Your task to perform on an android device: Open the Play Movies app and select the watchlist tab. Image 0: 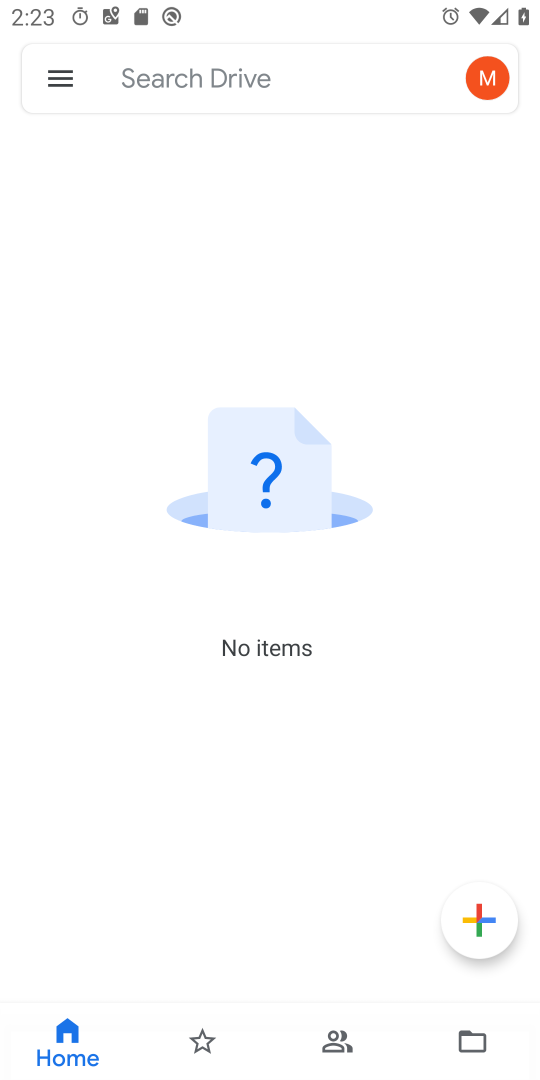
Step 0: press back button
Your task to perform on an android device: Open the Play Movies app and select the watchlist tab. Image 1: 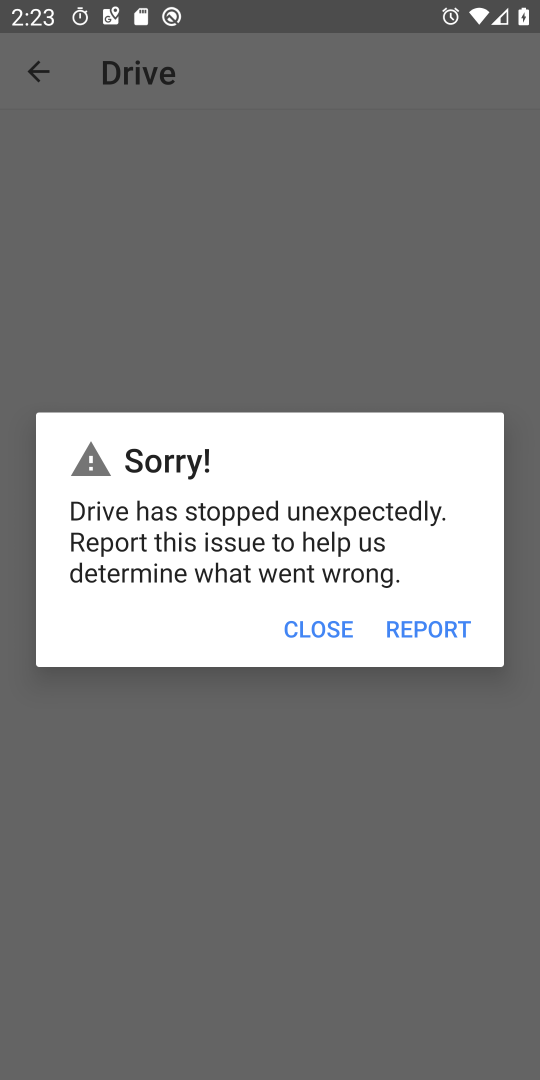
Step 1: press home button
Your task to perform on an android device: Open the Play Movies app and select the watchlist tab. Image 2: 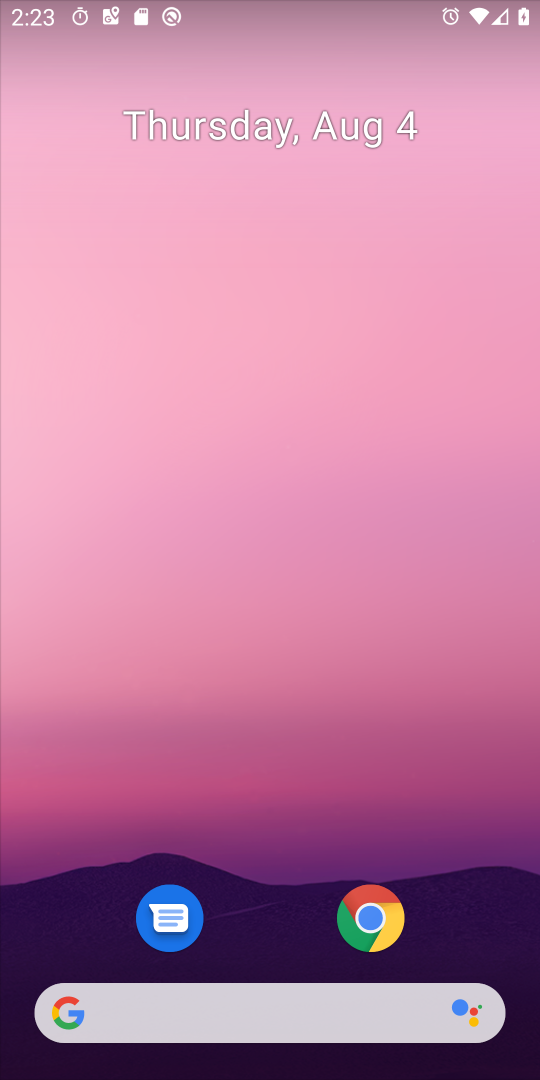
Step 2: drag from (293, 878) to (287, 422)
Your task to perform on an android device: Open the Play Movies app and select the watchlist tab. Image 3: 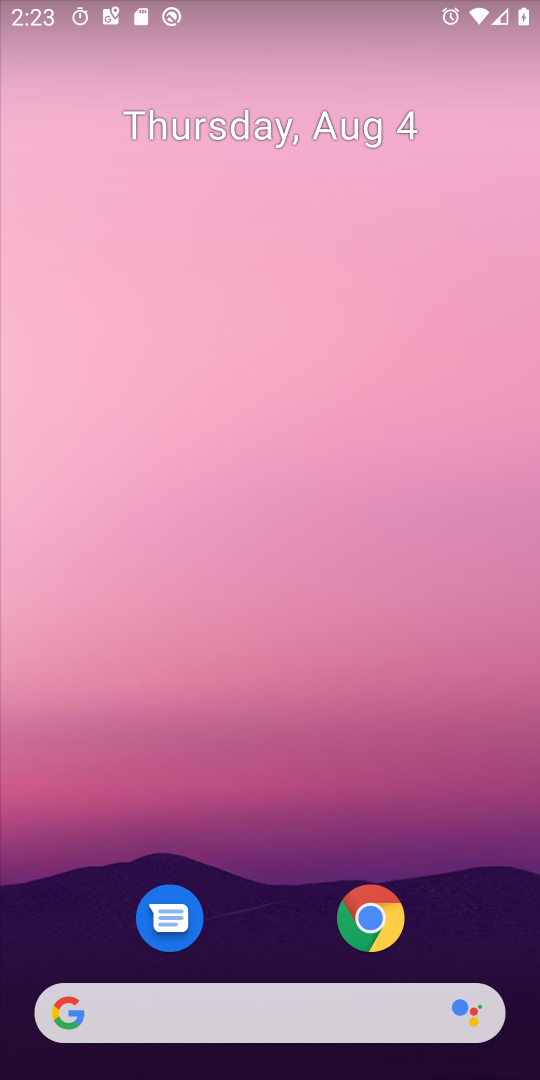
Step 3: drag from (298, 759) to (279, 250)
Your task to perform on an android device: Open the Play Movies app and select the watchlist tab. Image 4: 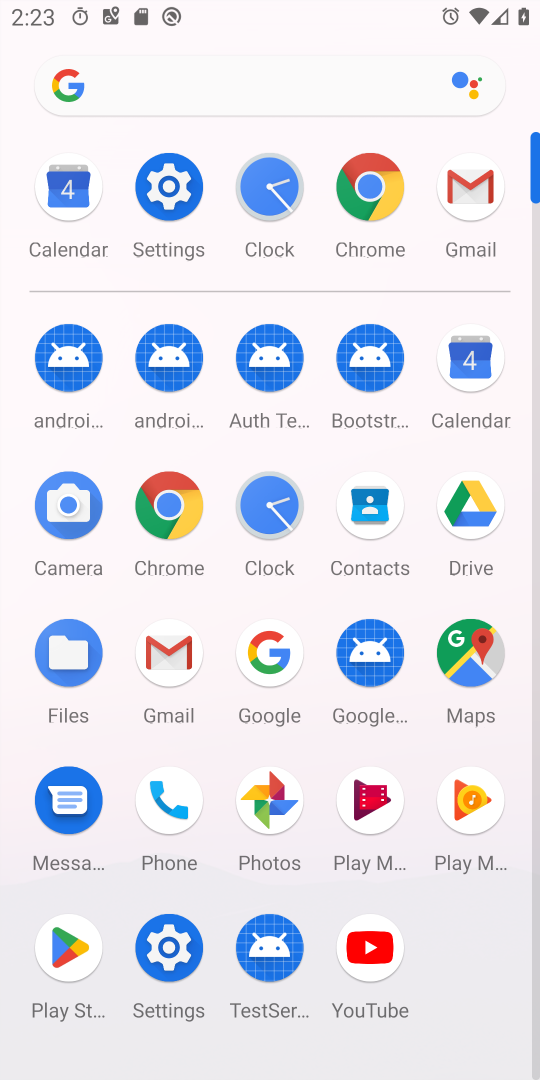
Step 4: click (354, 823)
Your task to perform on an android device: Open the Play Movies app and select the watchlist tab. Image 5: 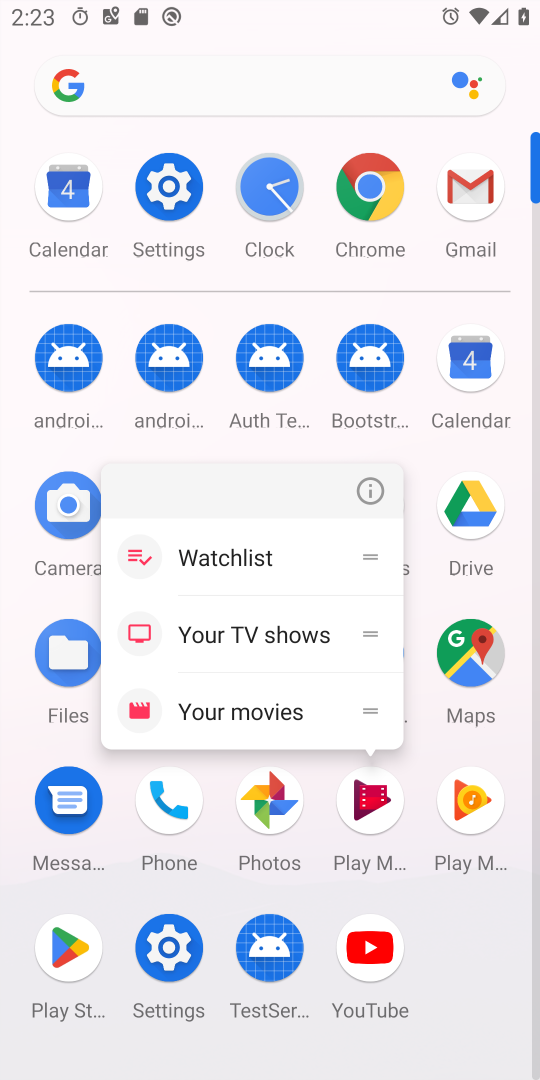
Step 5: click (365, 816)
Your task to perform on an android device: Open the Play Movies app and select the watchlist tab. Image 6: 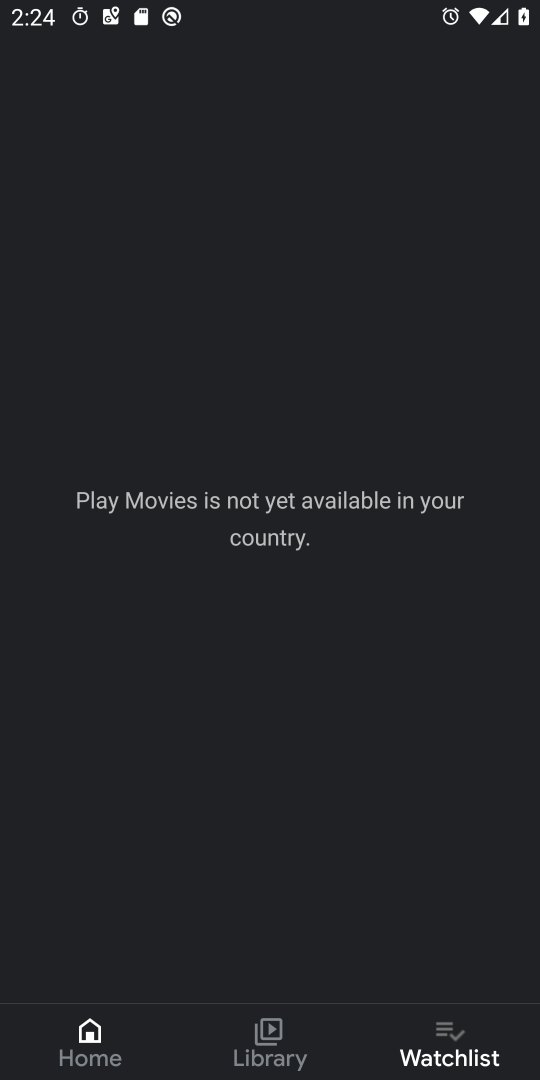
Step 6: click (467, 1018)
Your task to perform on an android device: Open the Play Movies app and select the watchlist tab. Image 7: 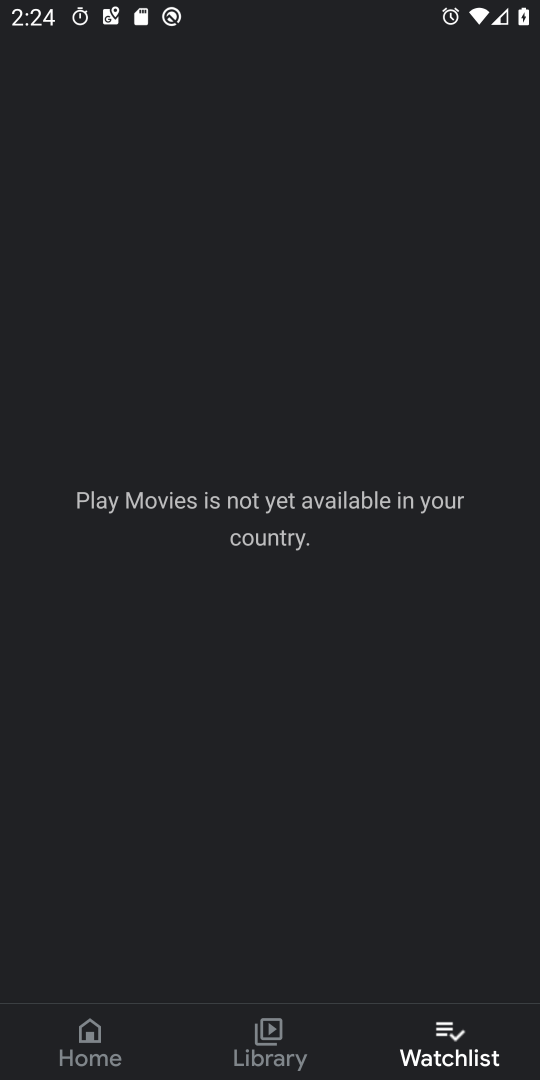
Step 7: task complete